Your task to perform on an android device: Search for Italian restaurants on Maps Image 0: 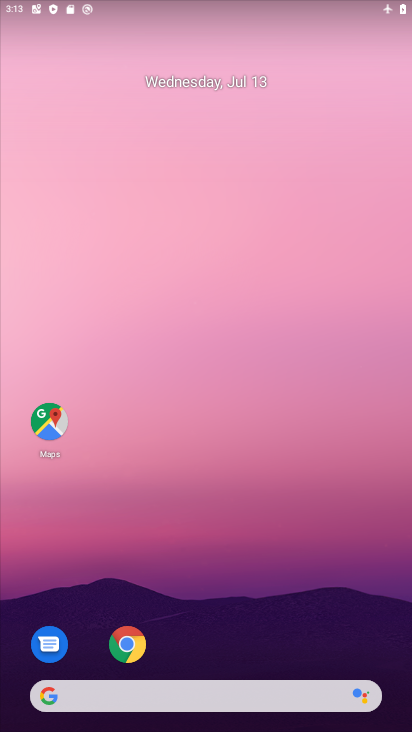
Step 0: drag from (300, 552) to (249, 16)
Your task to perform on an android device: Search for Italian restaurants on Maps Image 1: 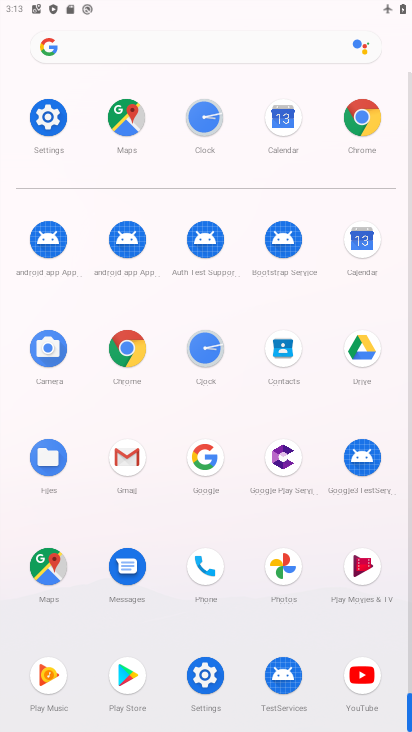
Step 1: click (136, 119)
Your task to perform on an android device: Search for Italian restaurants on Maps Image 2: 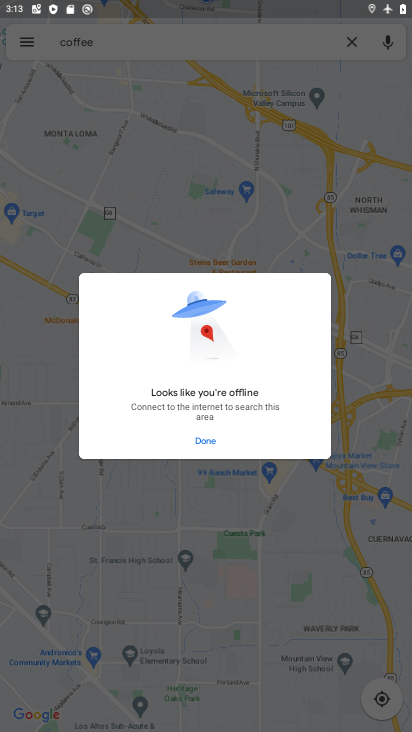
Step 2: click (207, 434)
Your task to perform on an android device: Search for Italian restaurants on Maps Image 3: 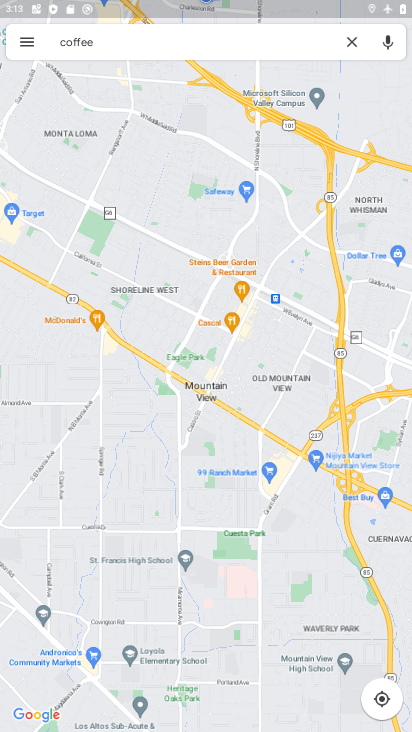
Step 3: click (242, 48)
Your task to perform on an android device: Search for Italian restaurants on Maps Image 4: 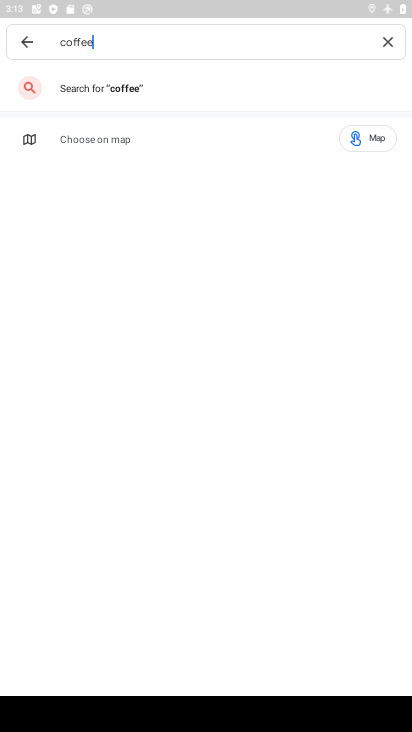
Step 4: click (392, 33)
Your task to perform on an android device: Search for Italian restaurants on Maps Image 5: 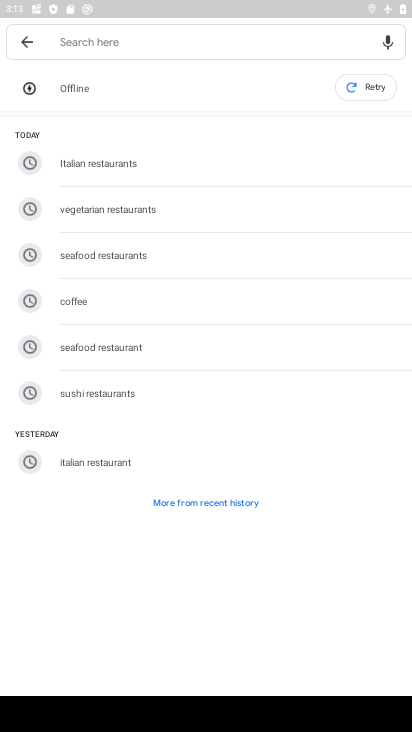
Step 5: click (116, 461)
Your task to perform on an android device: Search for Italian restaurants on Maps Image 6: 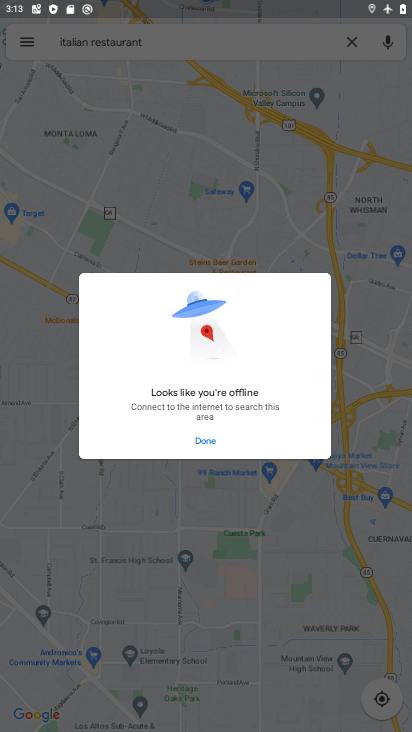
Step 6: task complete